Your task to perform on an android device: empty trash in the gmail app Image 0: 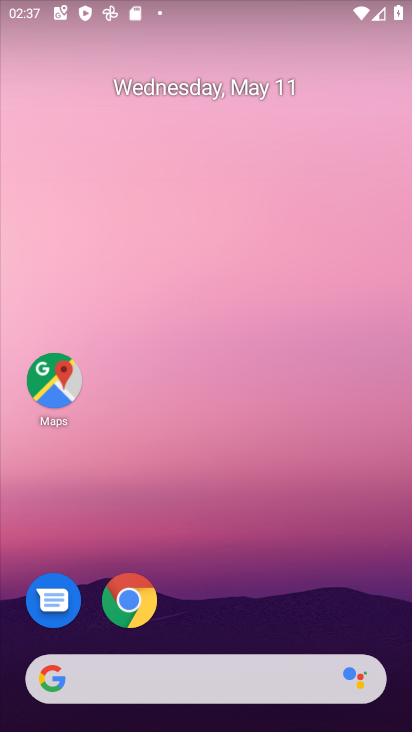
Step 0: drag from (287, 721) to (319, 113)
Your task to perform on an android device: empty trash in the gmail app Image 1: 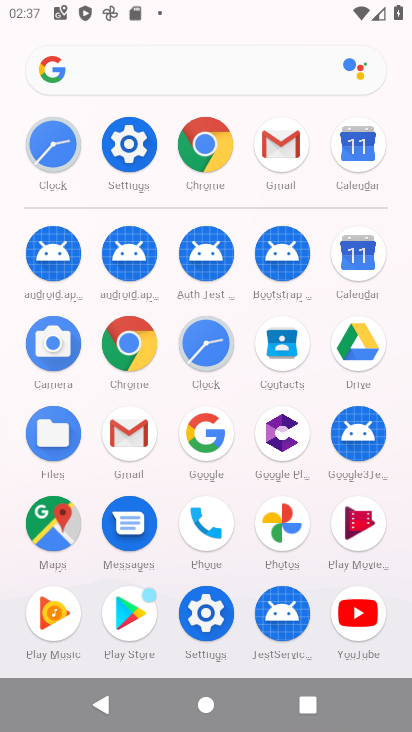
Step 1: click (266, 143)
Your task to perform on an android device: empty trash in the gmail app Image 2: 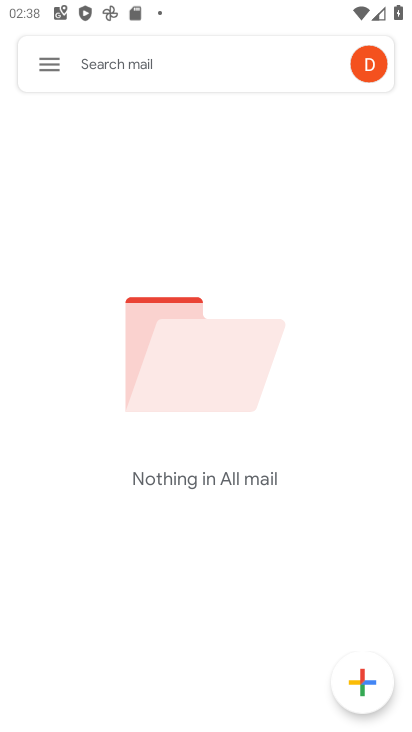
Step 2: click (48, 67)
Your task to perform on an android device: empty trash in the gmail app Image 3: 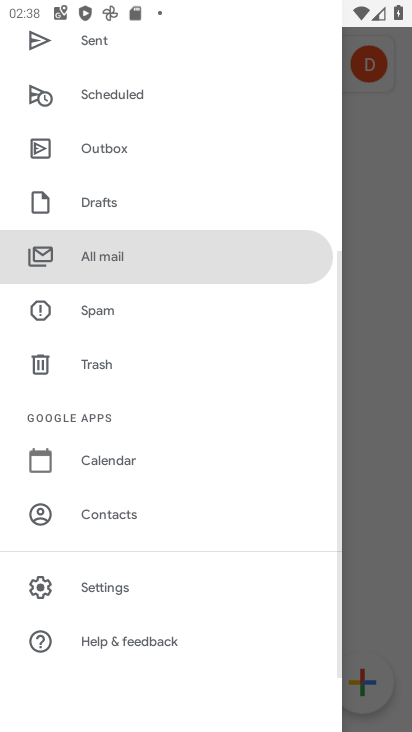
Step 3: click (114, 365)
Your task to perform on an android device: empty trash in the gmail app Image 4: 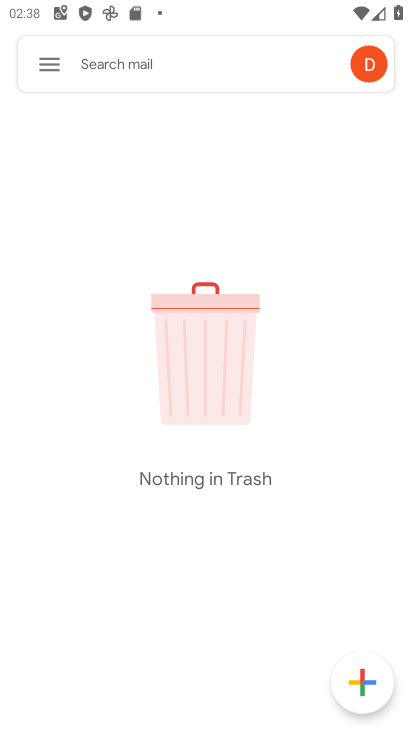
Step 4: task complete